Your task to perform on an android device: Open Amazon Image 0: 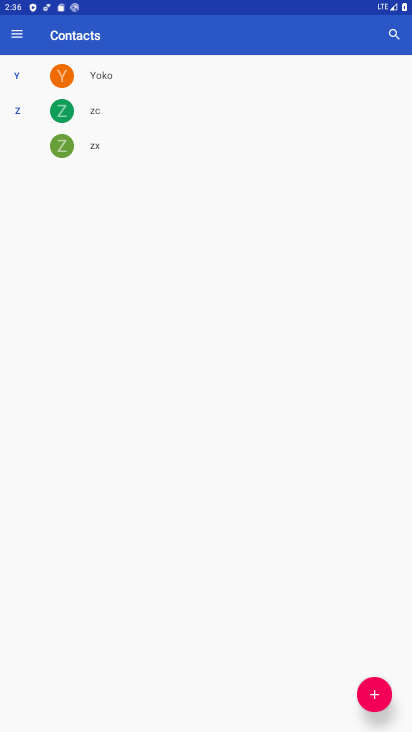
Step 0: press home button
Your task to perform on an android device: Open Amazon Image 1: 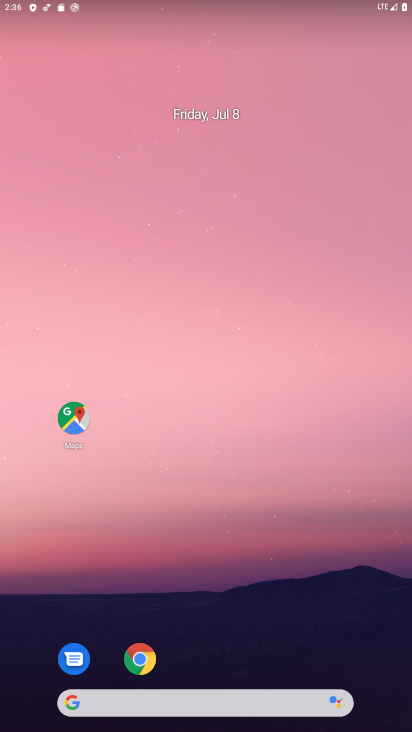
Step 1: click (137, 654)
Your task to perform on an android device: Open Amazon Image 2: 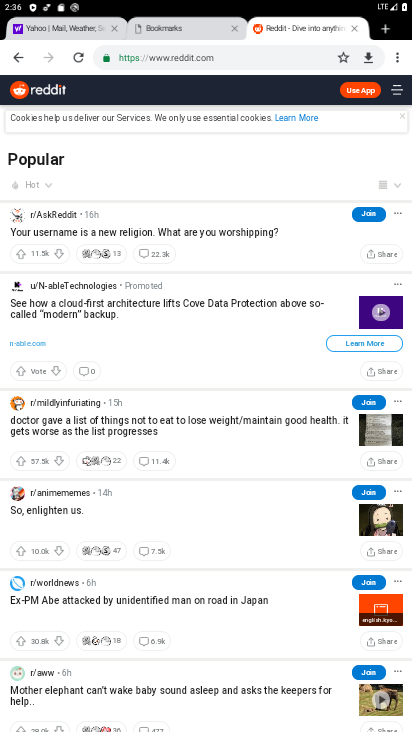
Step 2: click (384, 24)
Your task to perform on an android device: Open Amazon Image 3: 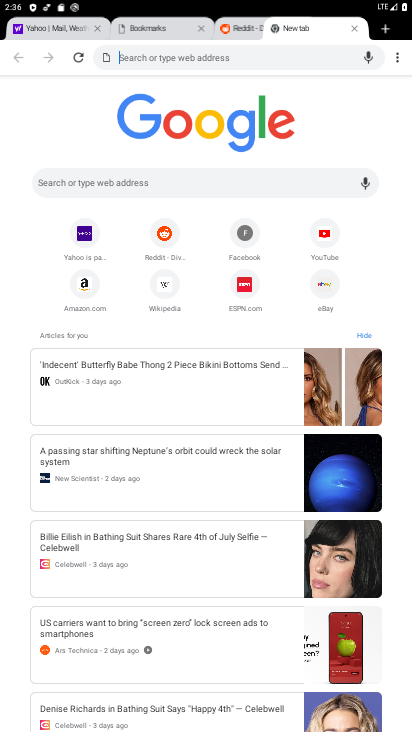
Step 3: click (85, 282)
Your task to perform on an android device: Open Amazon Image 4: 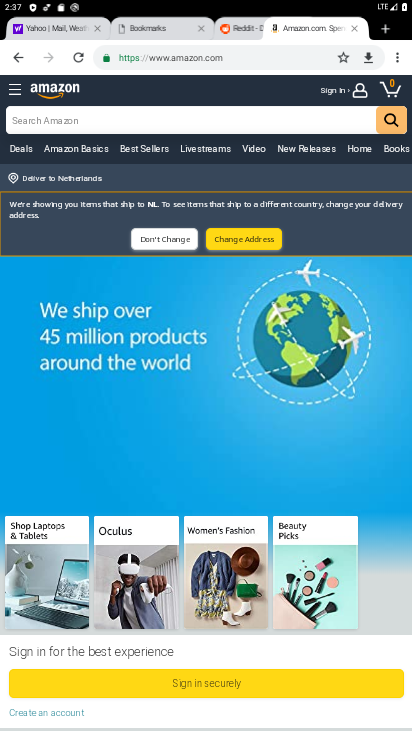
Step 4: task complete